Your task to perform on an android device: open chrome and create a bookmark for the current page Image 0: 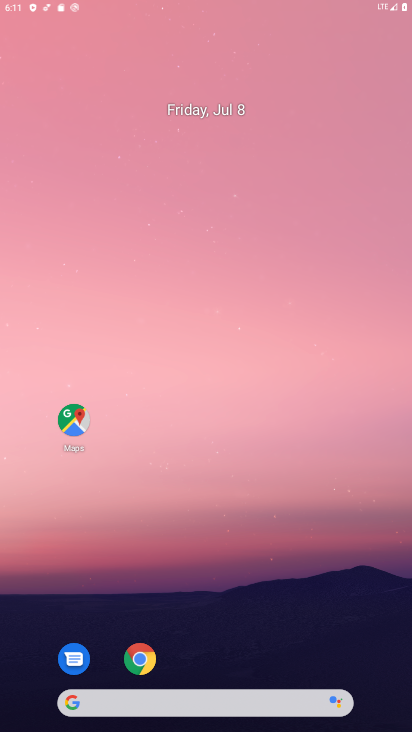
Step 0: drag from (242, 464) to (248, 53)
Your task to perform on an android device: open chrome and create a bookmark for the current page Image 1: 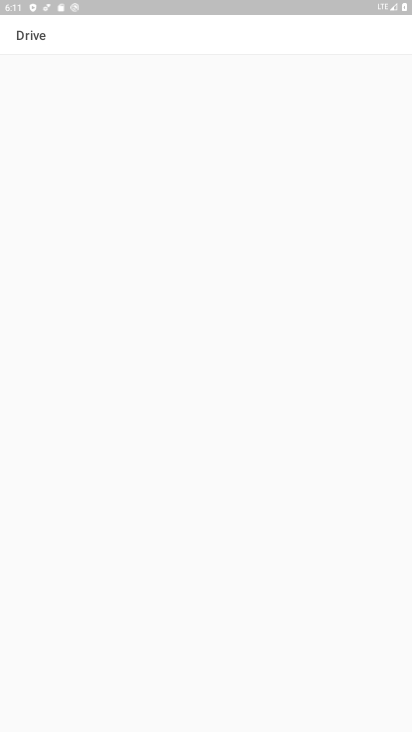
Step 1: press home button
Your task to perform on an android device: open chrome and create a bookmark for the current page Image 2: 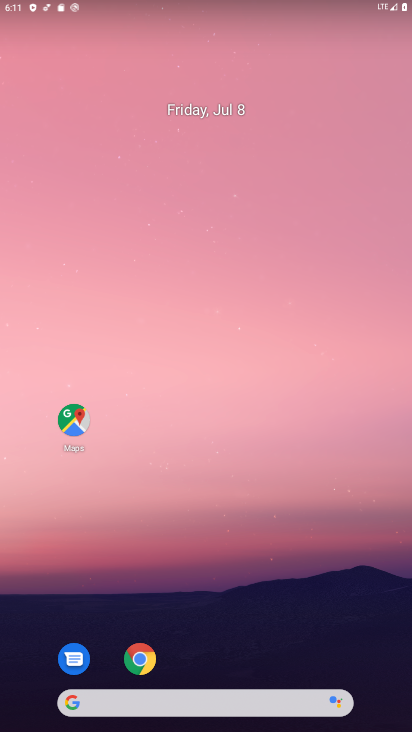
Step 2: drag from (143, 695) to (296, 65)
Your task to perform on an android device: open chrome and create a bookmark for the current page Image 3: 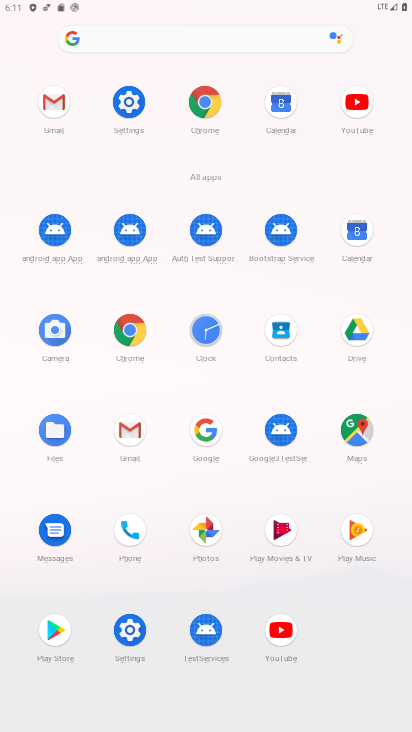
Step 3: click (132, 335)
Your task to perform on an android device: open chrome and create a bookmark for the current page Image 4: 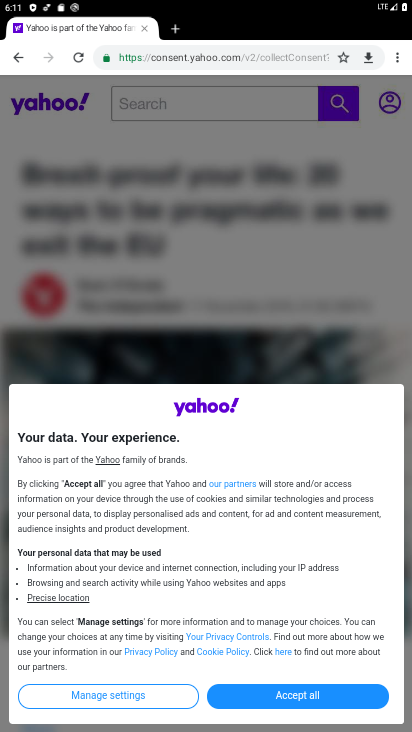
Step 4: task complete